Your task to perform on an android device: Clear the shopping cart on amazon. Image 0: 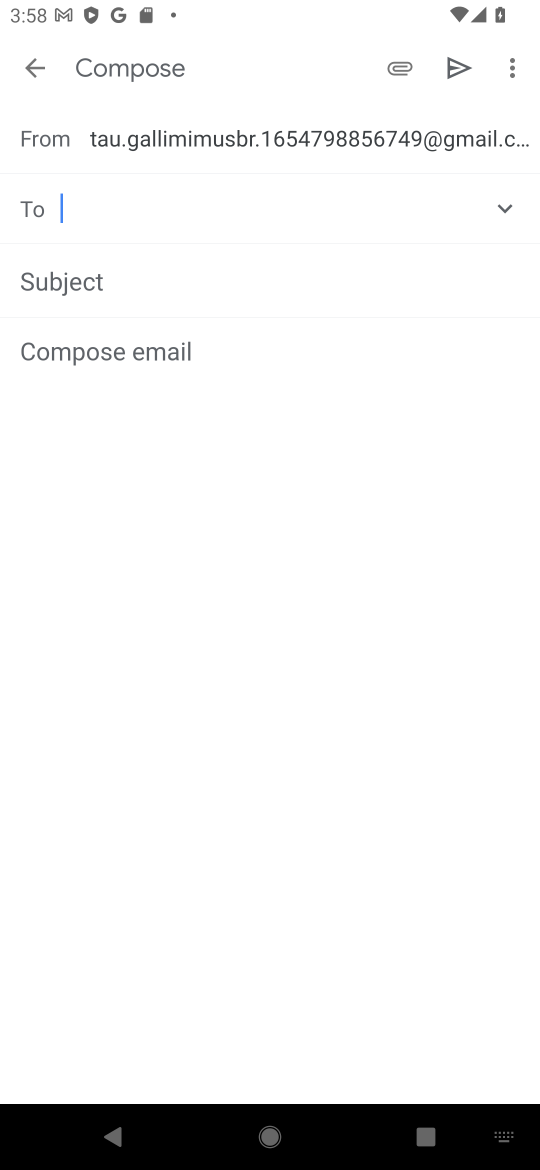
Step 0: press home button
Your task to perform on an android device: Clear the shopping cart on amazon. Image 1: 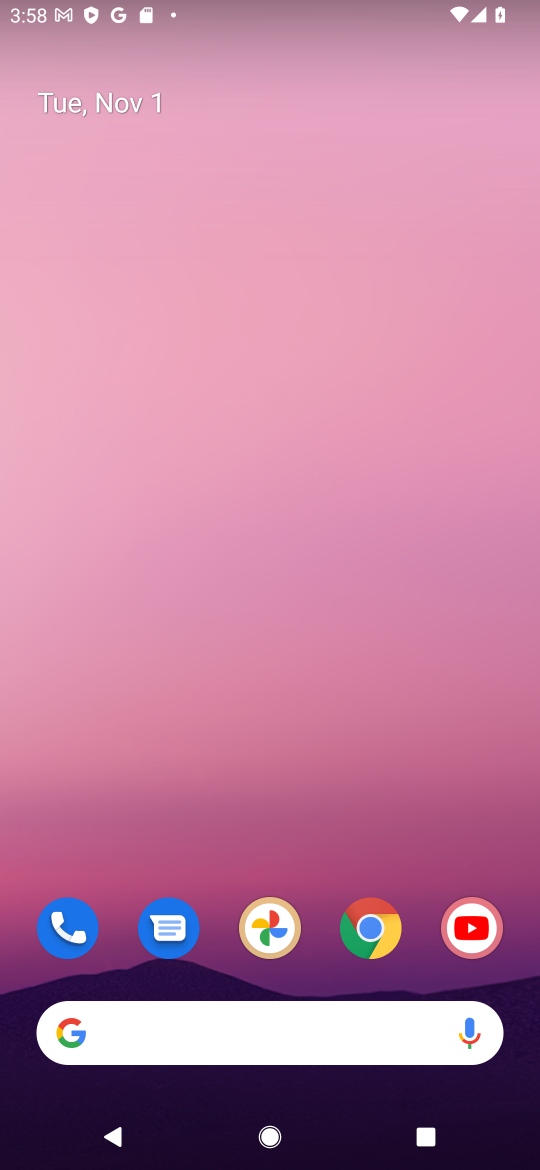
Step 1: click (373, 931)
Your task to perform on an android device: Clear the shopping cart on amazon. Image 2: 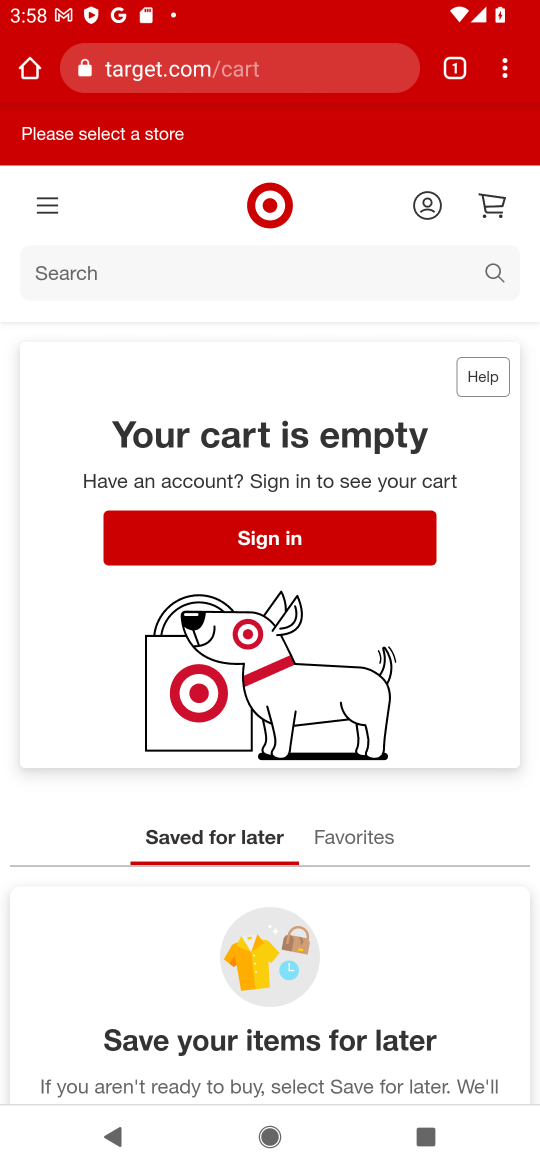
Step 2: click (270, 51)
Your task to perform on an android device: Clear the shopping cart on amazon. Image 3: 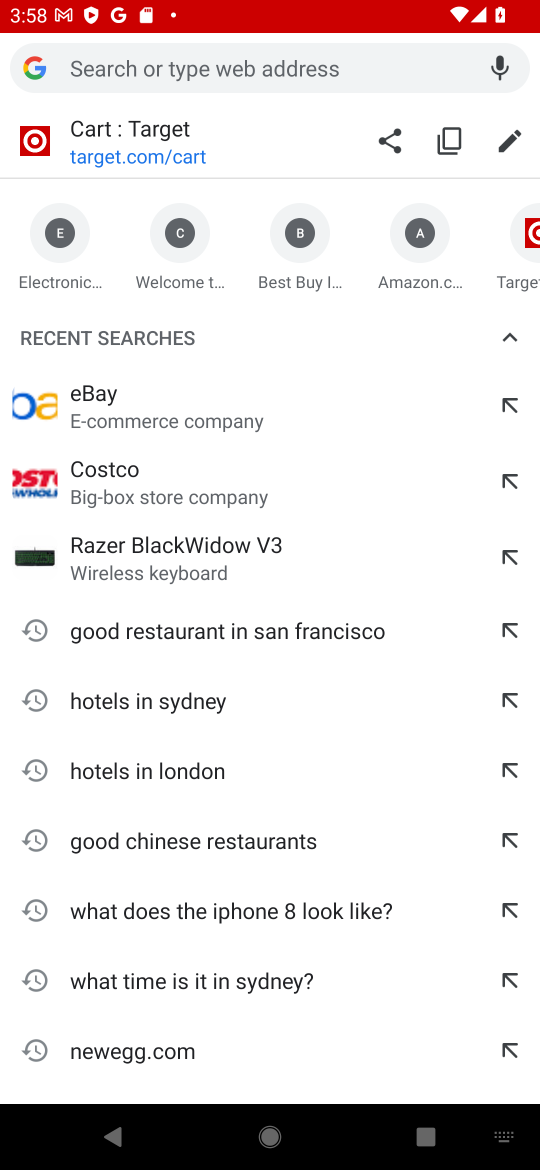
Step 3: type "amazon"
Your task to perform on an android device: Clear the shopping cart on amazon. Image 4: 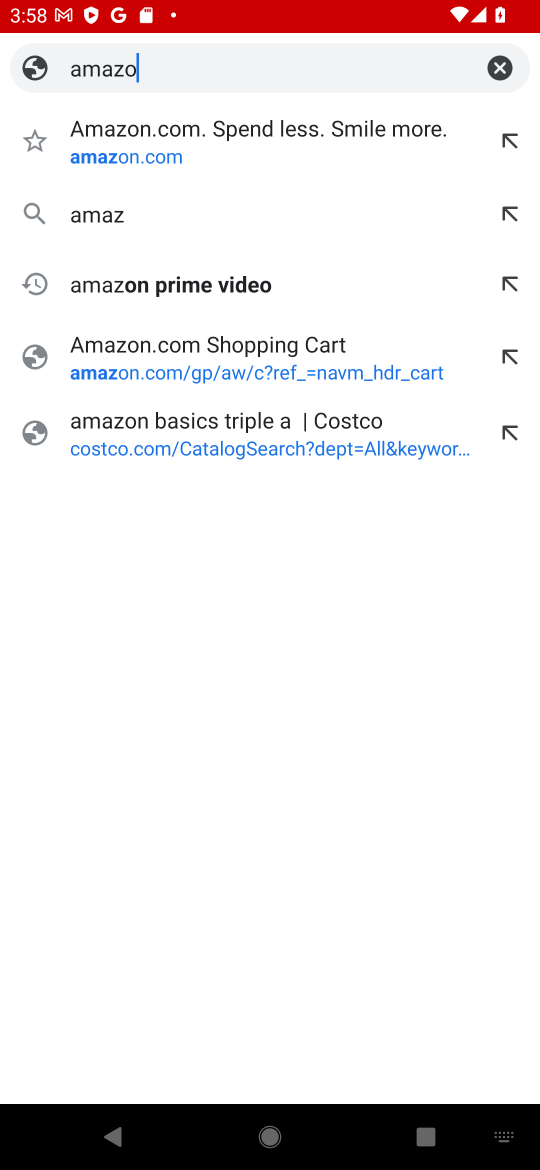
Step 4: type ""
Your task to perform on an android device: Clear the shopping cart on amazon. Image 5: 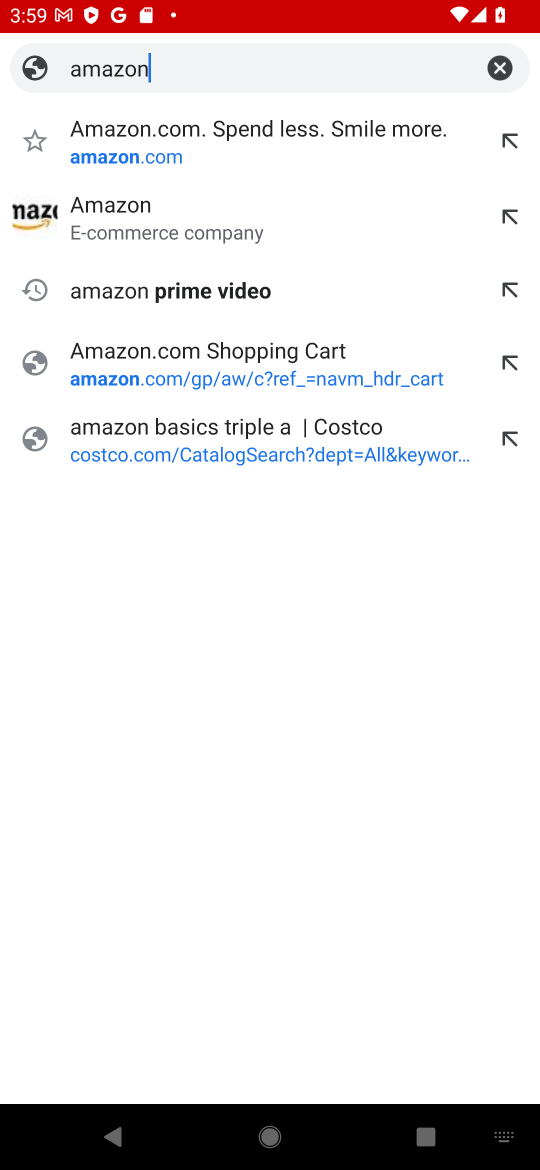
Step 5: press enter
Your task to perform on an android device: Clear the shopping cart on amazon. Image 6: 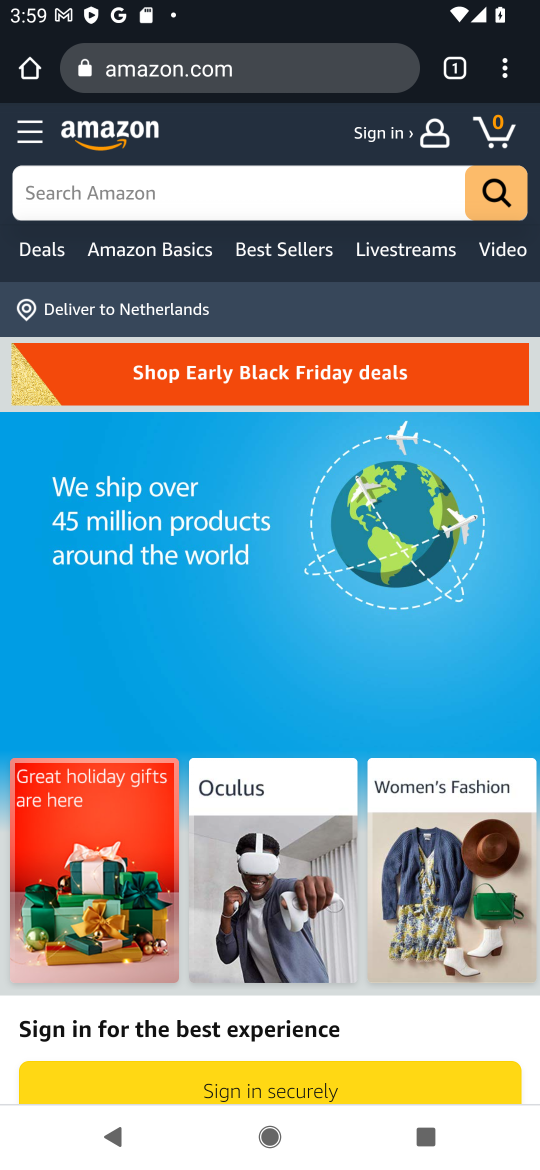
Step 6: click (502, 133)
Your task to perform on an android device: Clear the shopping cart on amazon. Image 7: 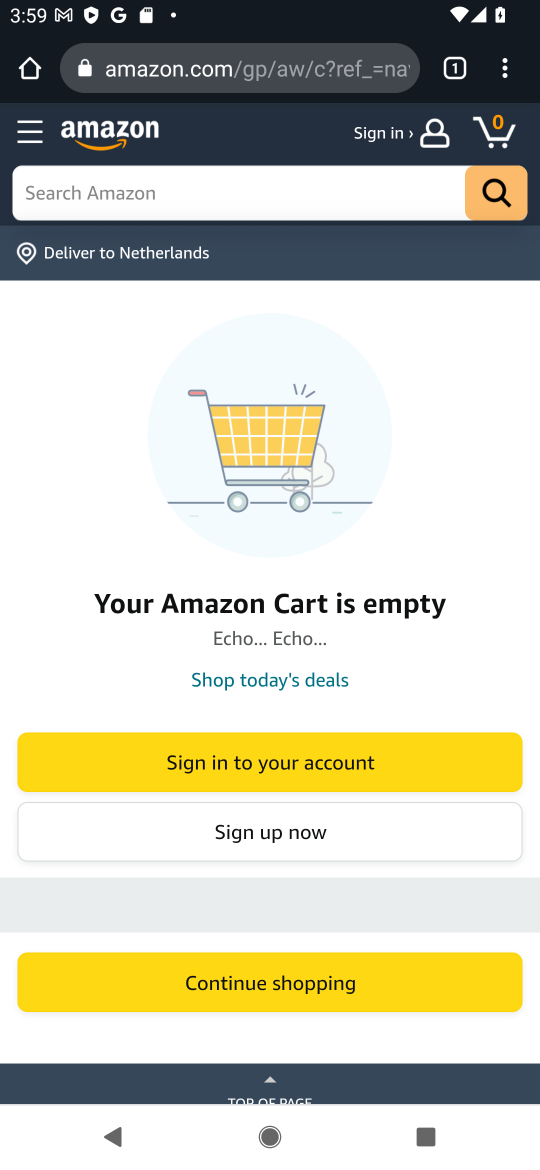
Step 7: task complete